Your task to perform on an android device: Add "logitech g pro" to the cart on ebay.com Image 0: 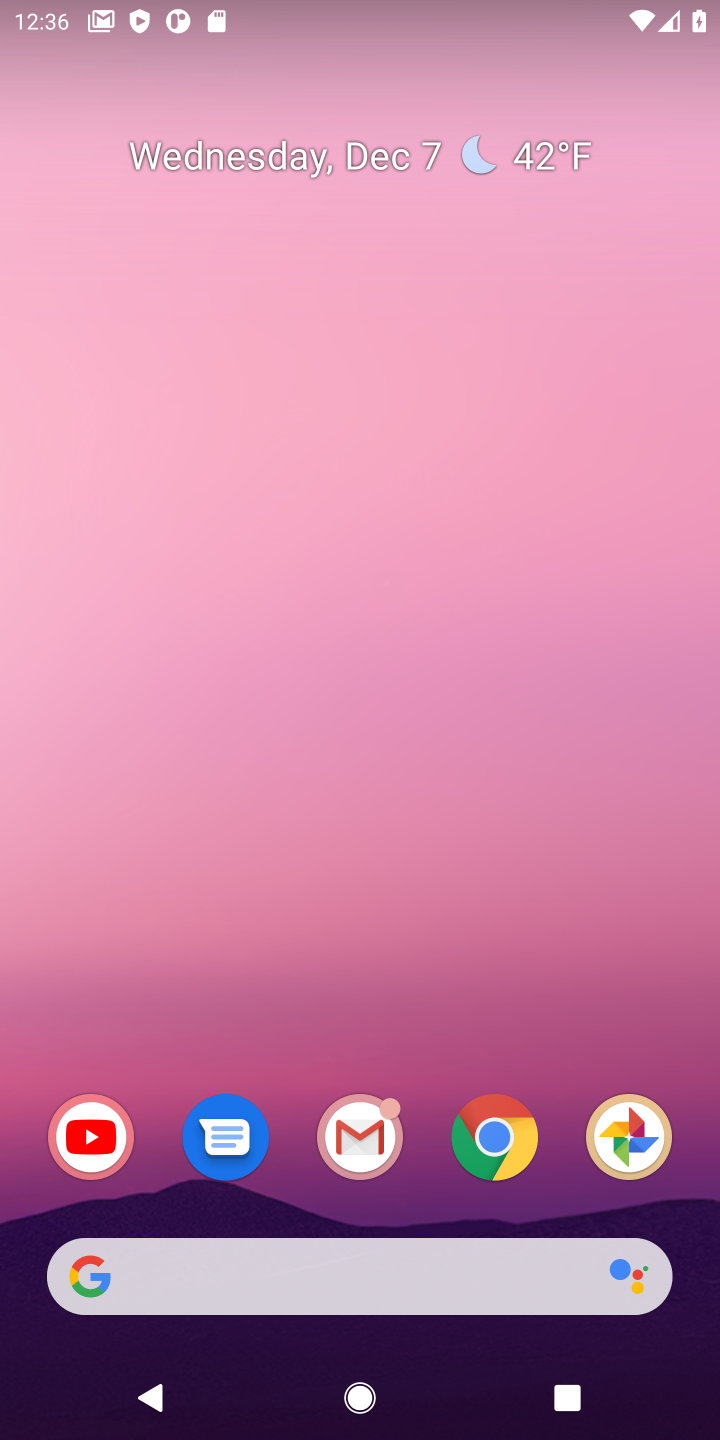
Step 0: drag from (294, 1137) to (323, 305)
Your task to perform on an android device: Add "logitech g pro" to the cart on ebay.com Image 1: 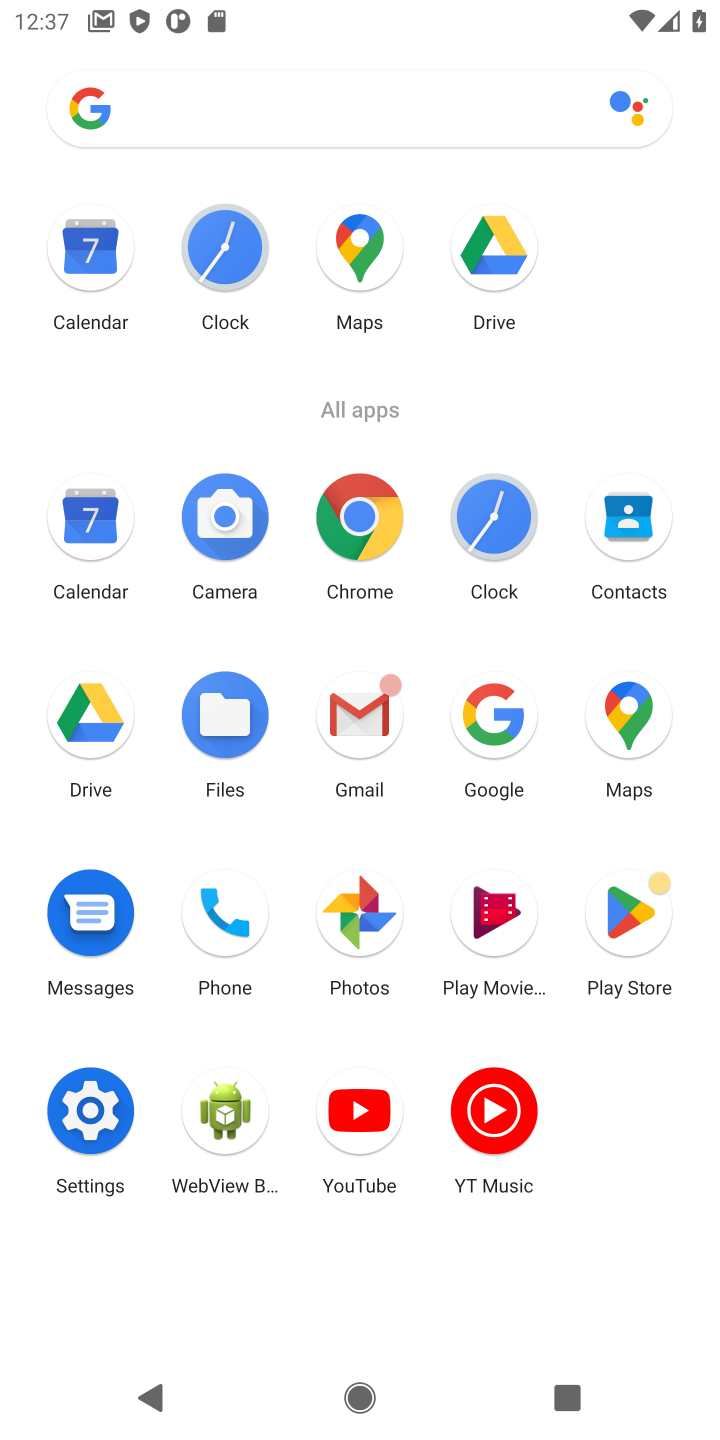
Step 1: click (493, 702)
Your task to perform on an android device: Add "logitech g pro" to the cart on ebay.com Image 2: 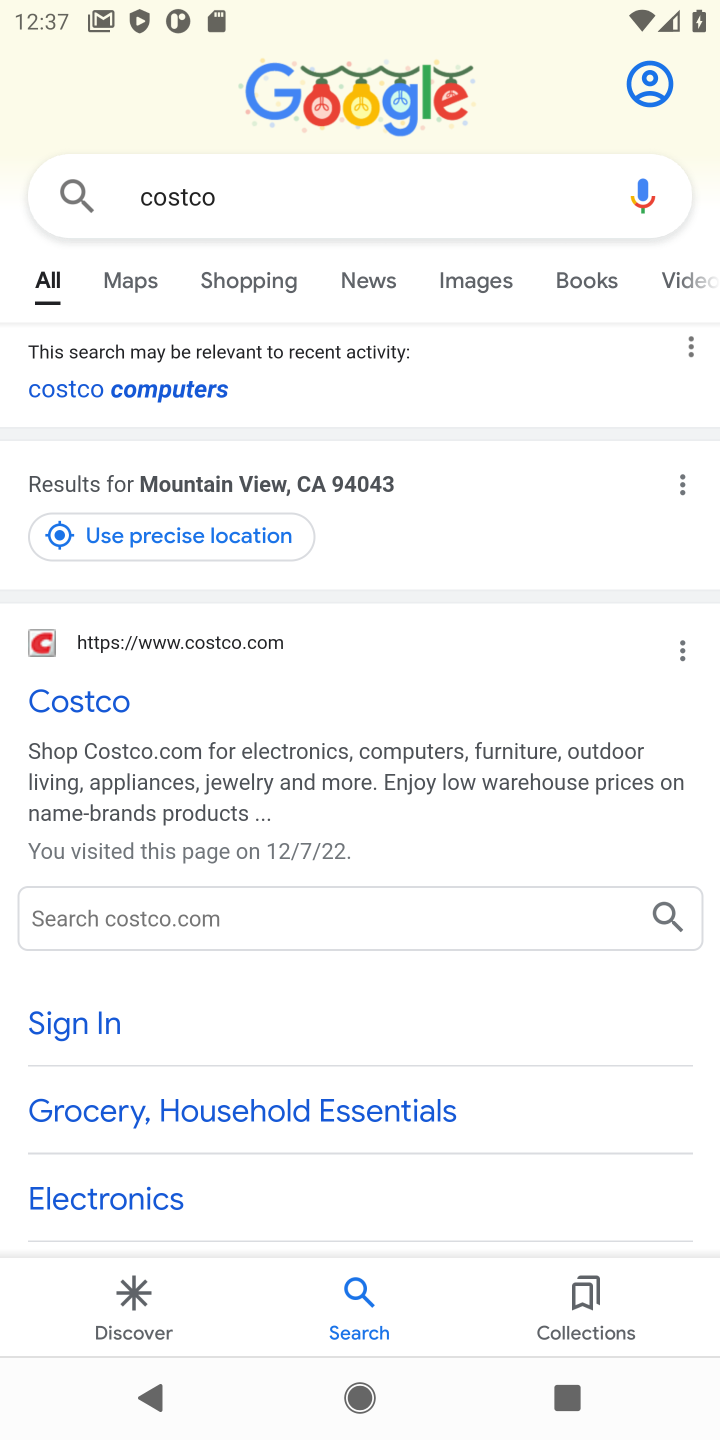
Step 2: click (199, 212)
Your task to perform on an android device: Add "logitech g pro" to the cart on ebay.com Image 3: 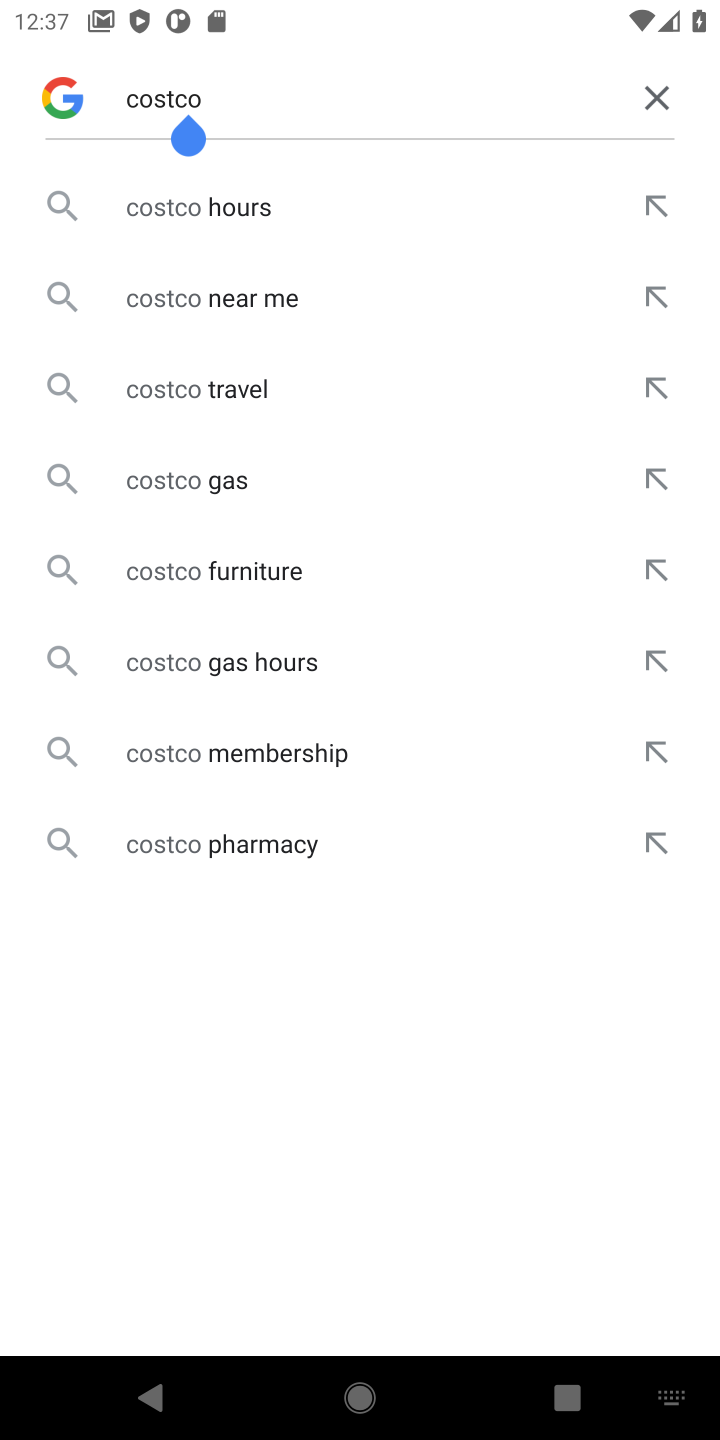
Step 3: click (659, 100)
Your task to perform on an android device: Add "logitech g pro" to the cart on ebay.com Image 4: 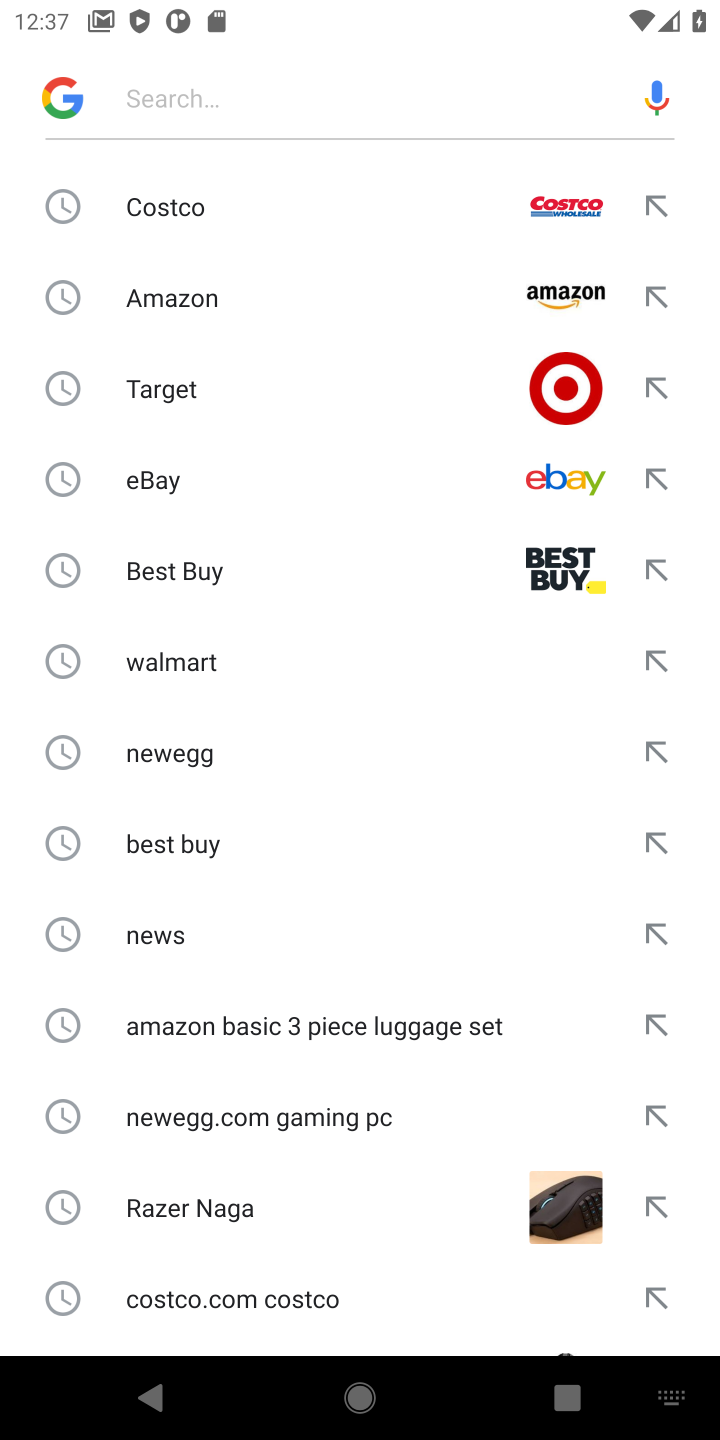
Step 4: click (164, 481)
Your task to perform on an android device: Add "logitech g pro" to the cart on ebay.com Image 5: 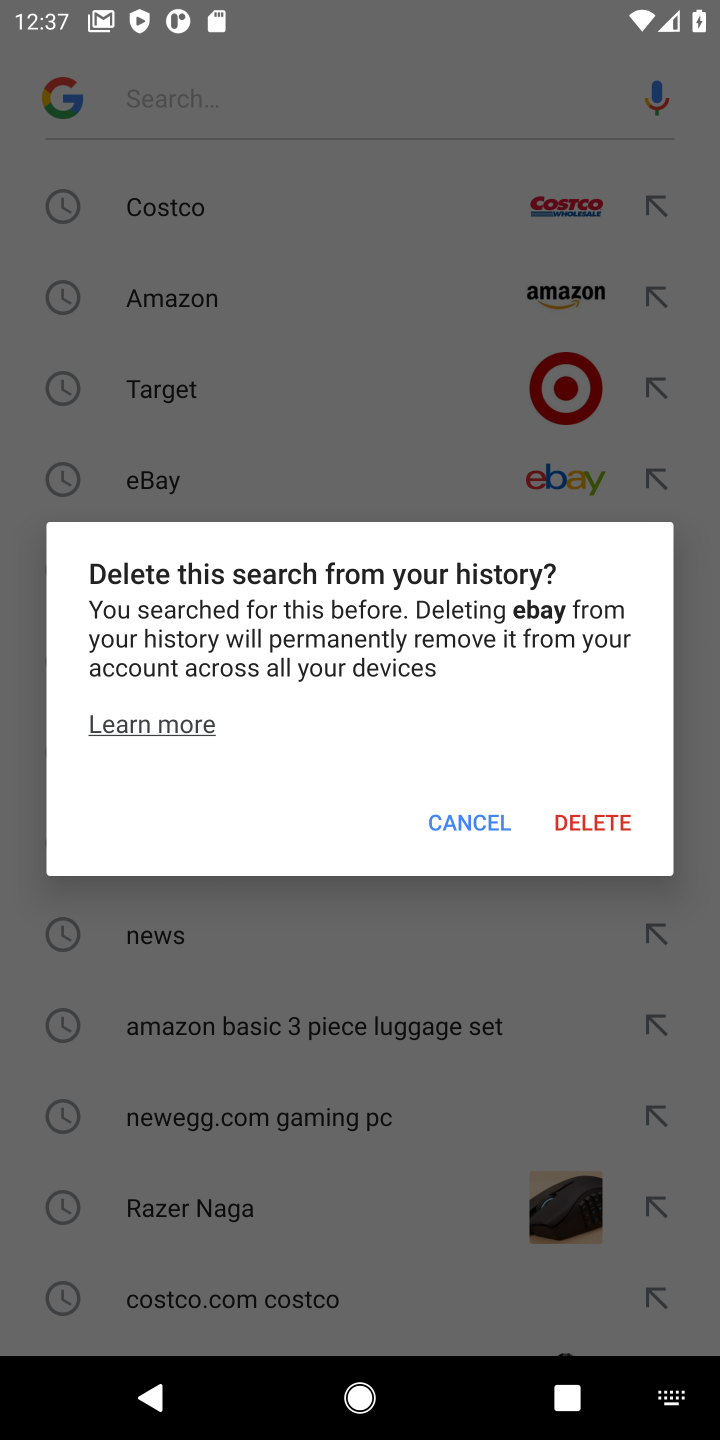
Step 5: click (496, 811)
Your task to perform on an android device: Add "logitech g pro" to the cart on ebay.com Image 6: 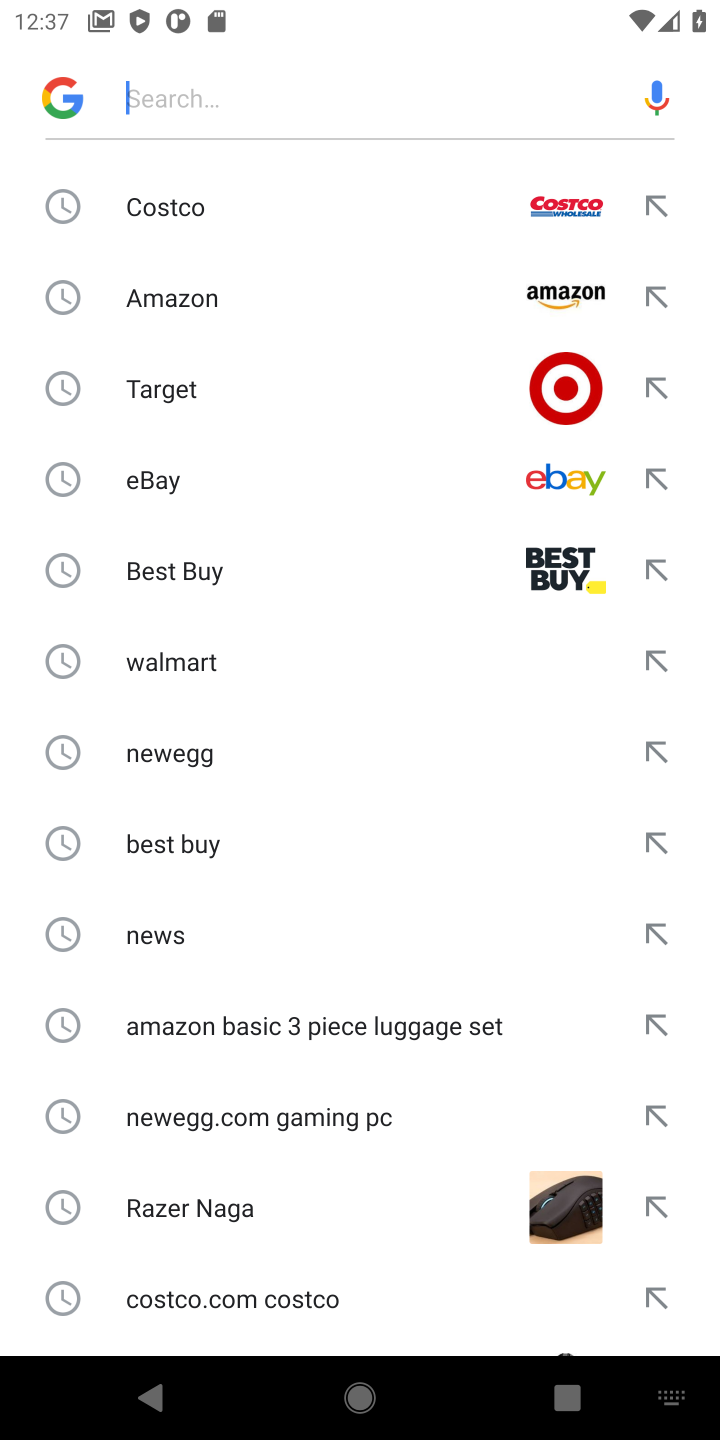
Step 6: click (562, 486)
Your task to perform on an android device: Add "logitech g pro" to the cart on ebay.com Image 7: 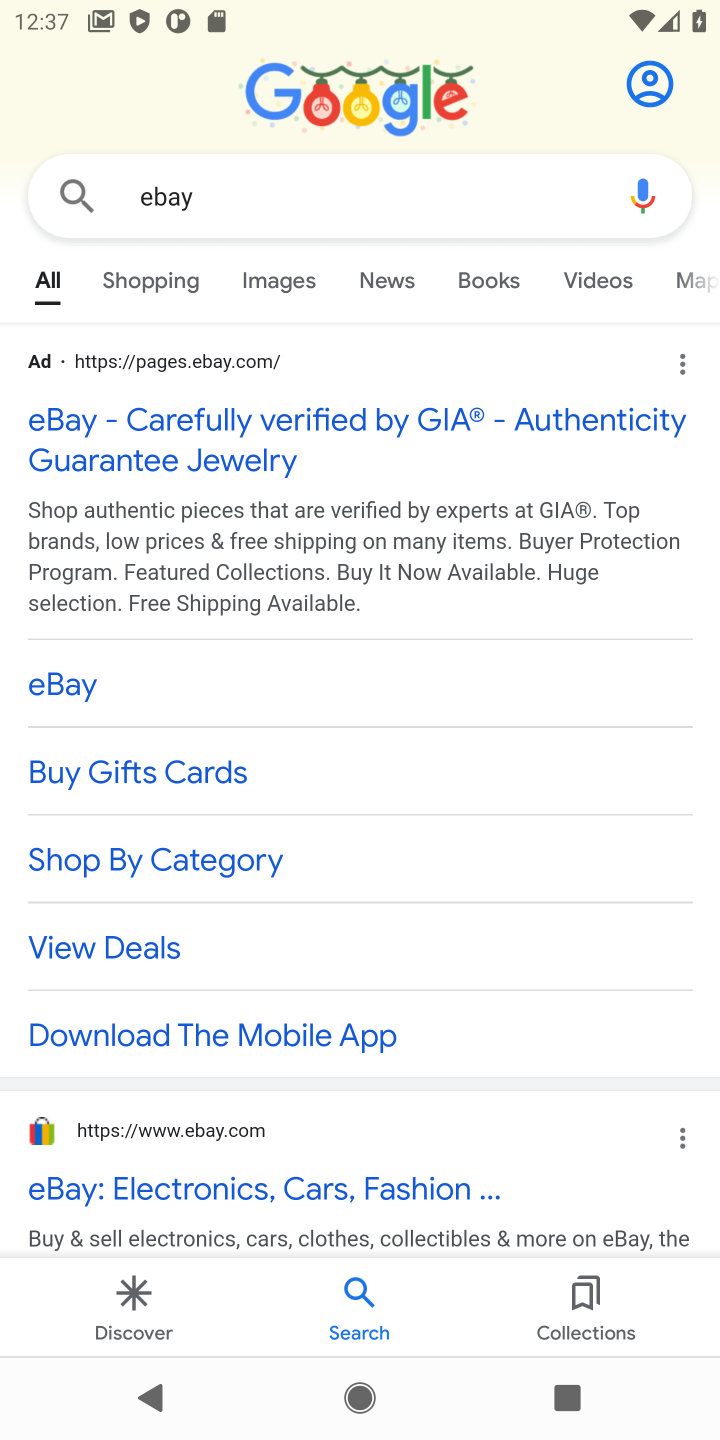
Step 7: click (209, 438)
Your task to perform on an android device: Add "logitech g pro" to the cart on ebay.com Image 8: 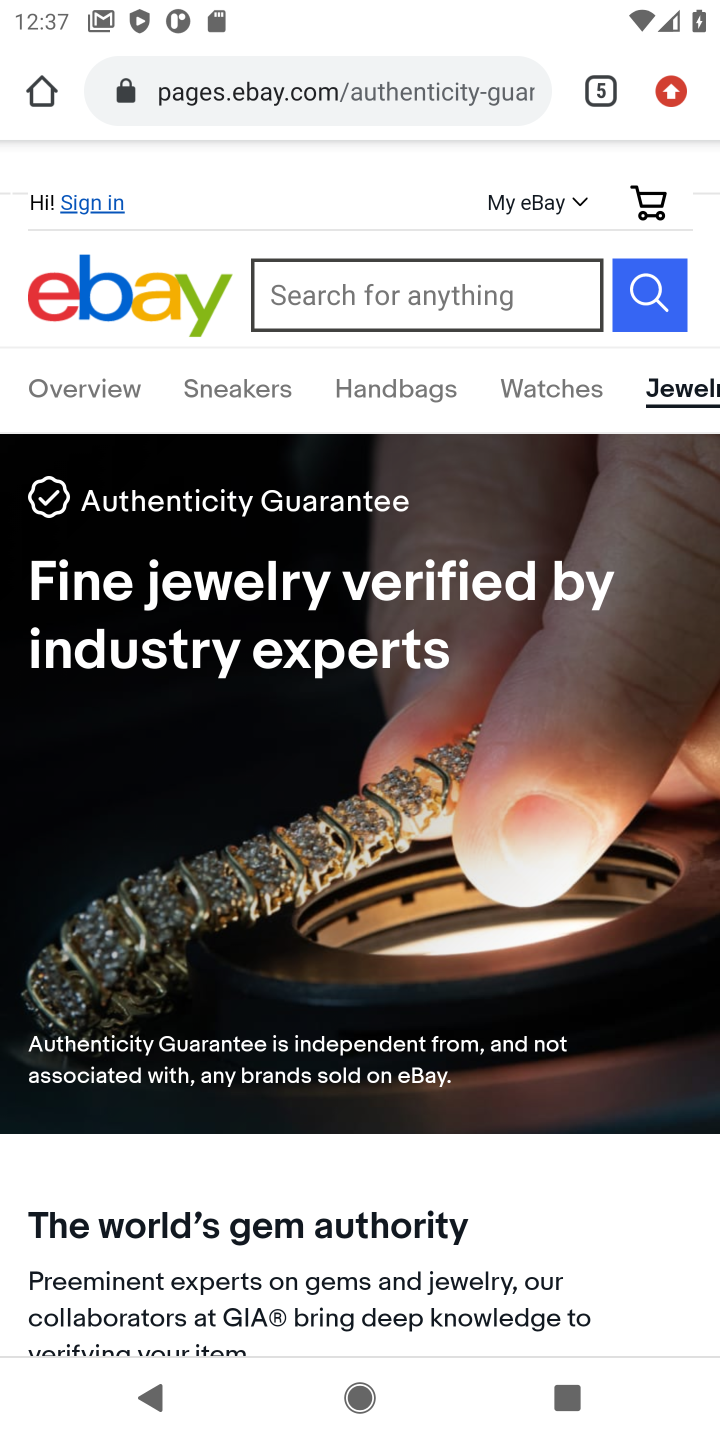
Step 8: click (396, 309)
Your task to perform on an android device: Add "logitech g pro" to the cart on ebay.com Image 9: 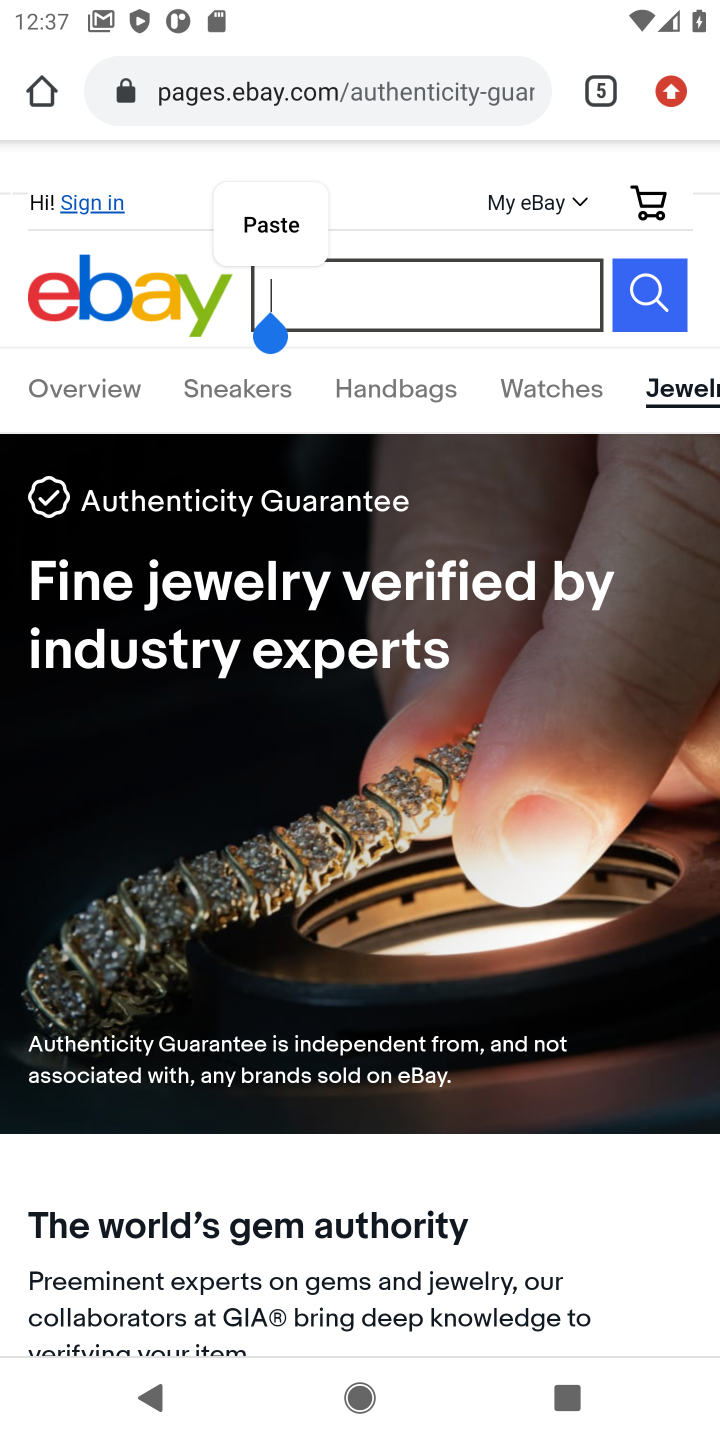
Step 9: type "logitech g pro"
Your task to perform on an android device: Add "logitech g pro" to the cart on ebay.com Image 10: 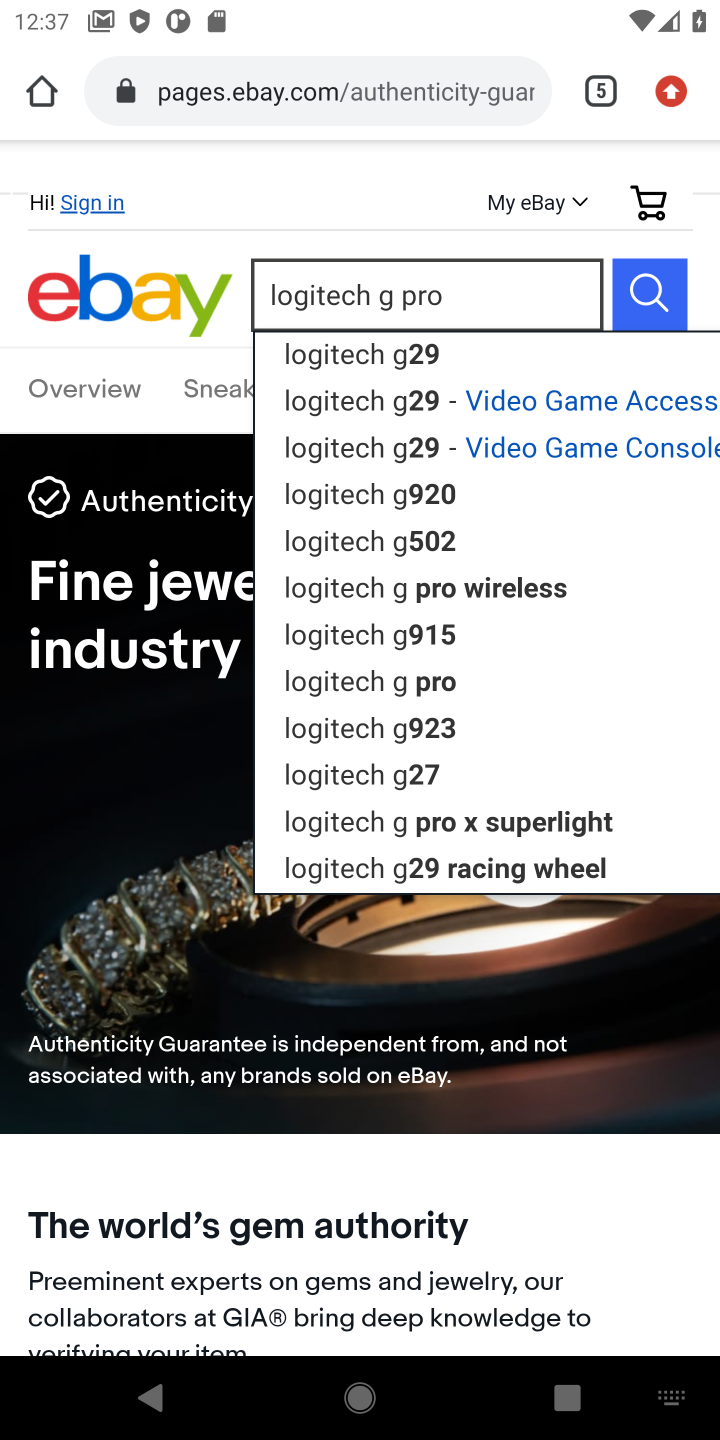
Step 10: click (378, 684)
Your task to perform on an android device: Add "logitech g pro" to the cart on ebay.com Image 11: 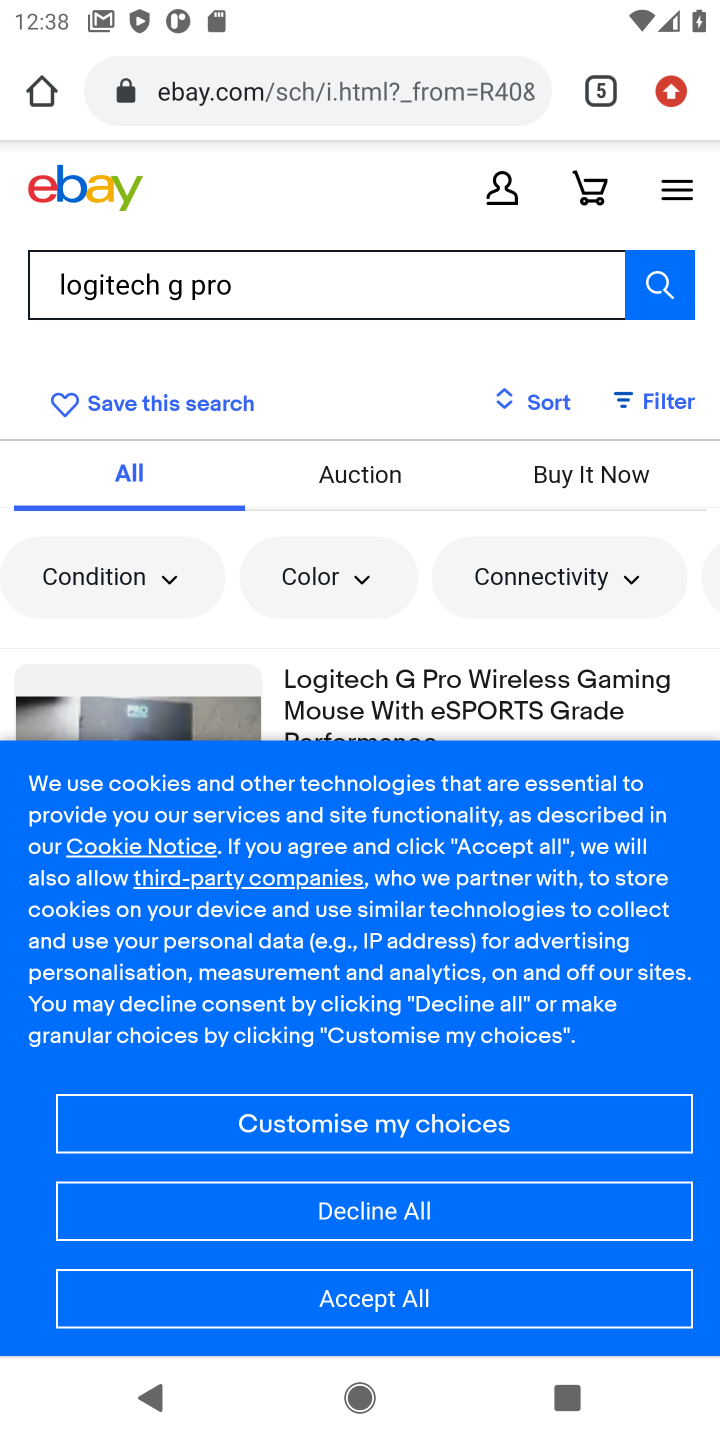
Step 11: click (327, 696)
Your task to perform on an android device: Add "logitech g pro" to the cart on ebay.com Image 12: 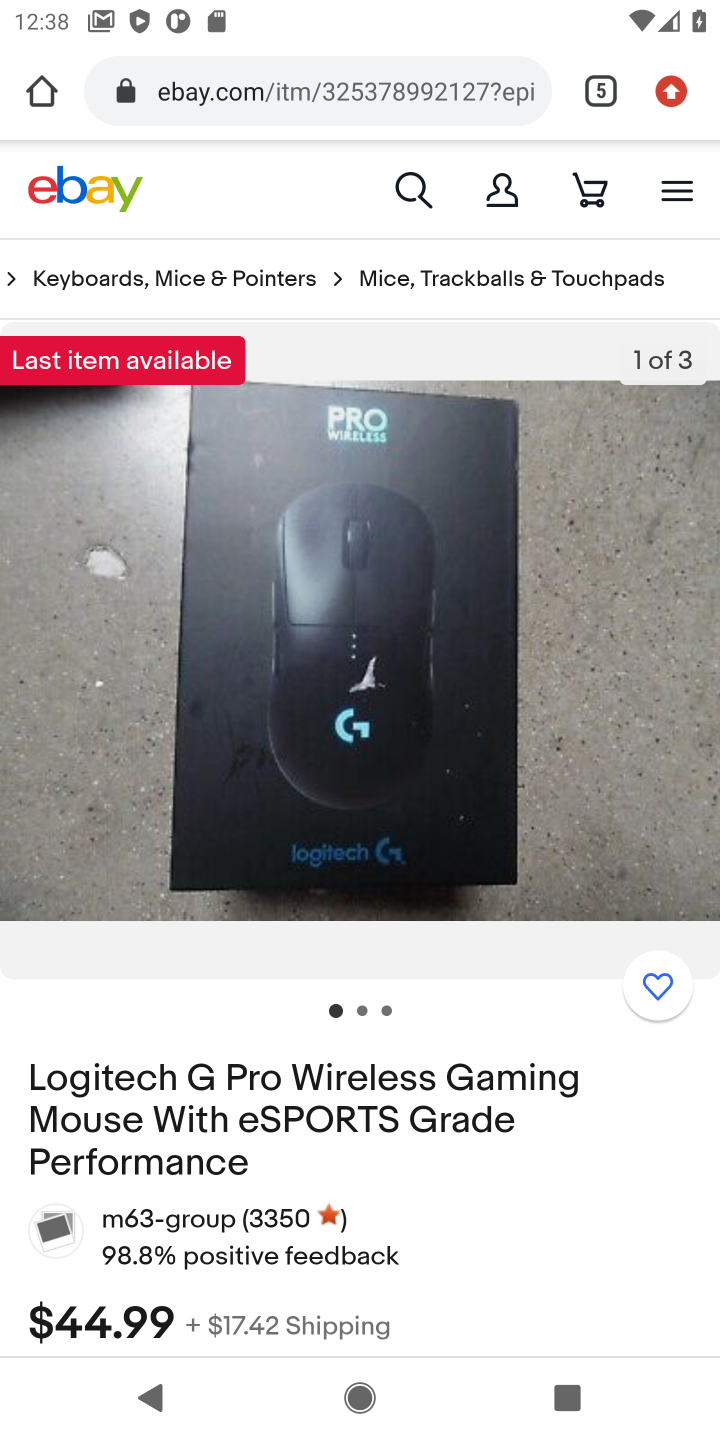
Step 12: drag from (379, 833) to (359, 483)
Your task to perform on an android device: Add "logitech g pro" to the cart on ebay.com Image 13: 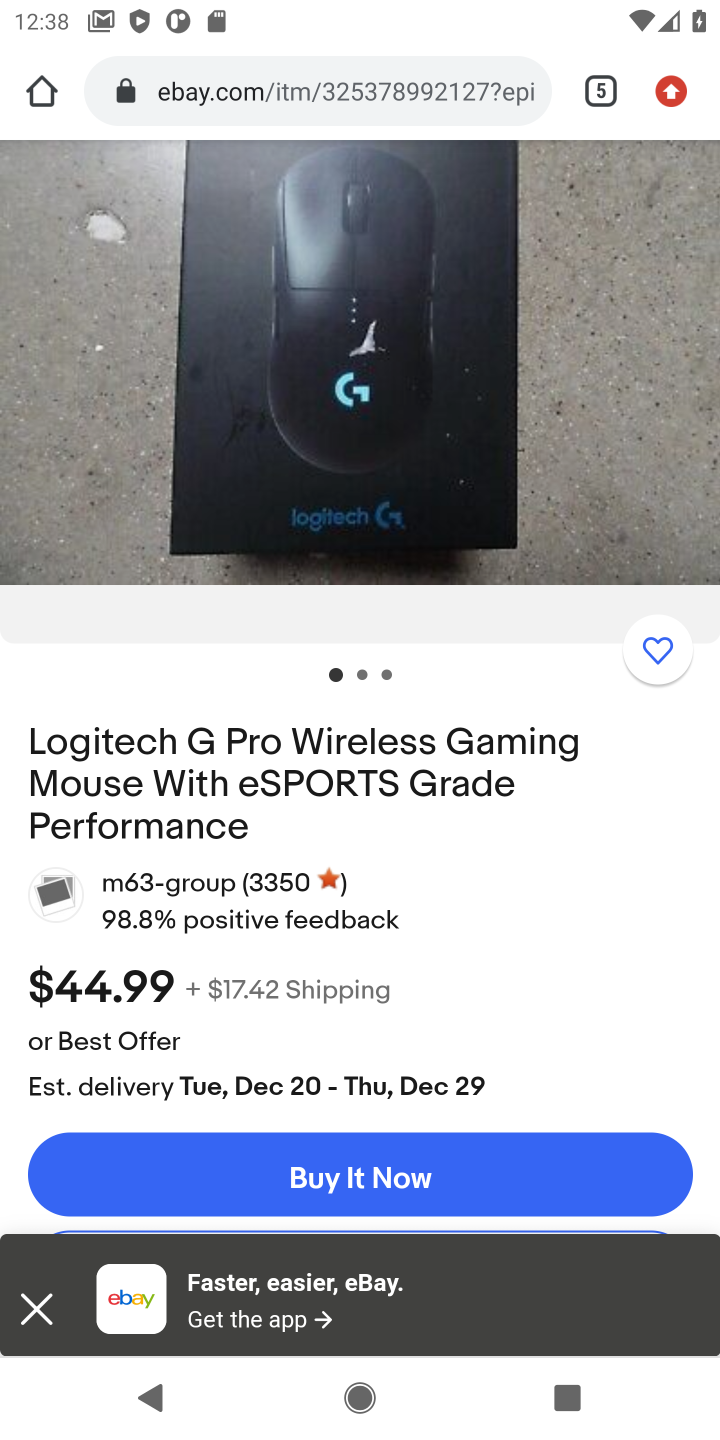
Step 13: click (34, 1307)
Your task to perform on an android device: Add "logitech g pro" to the cart on ebay.com Image 14: 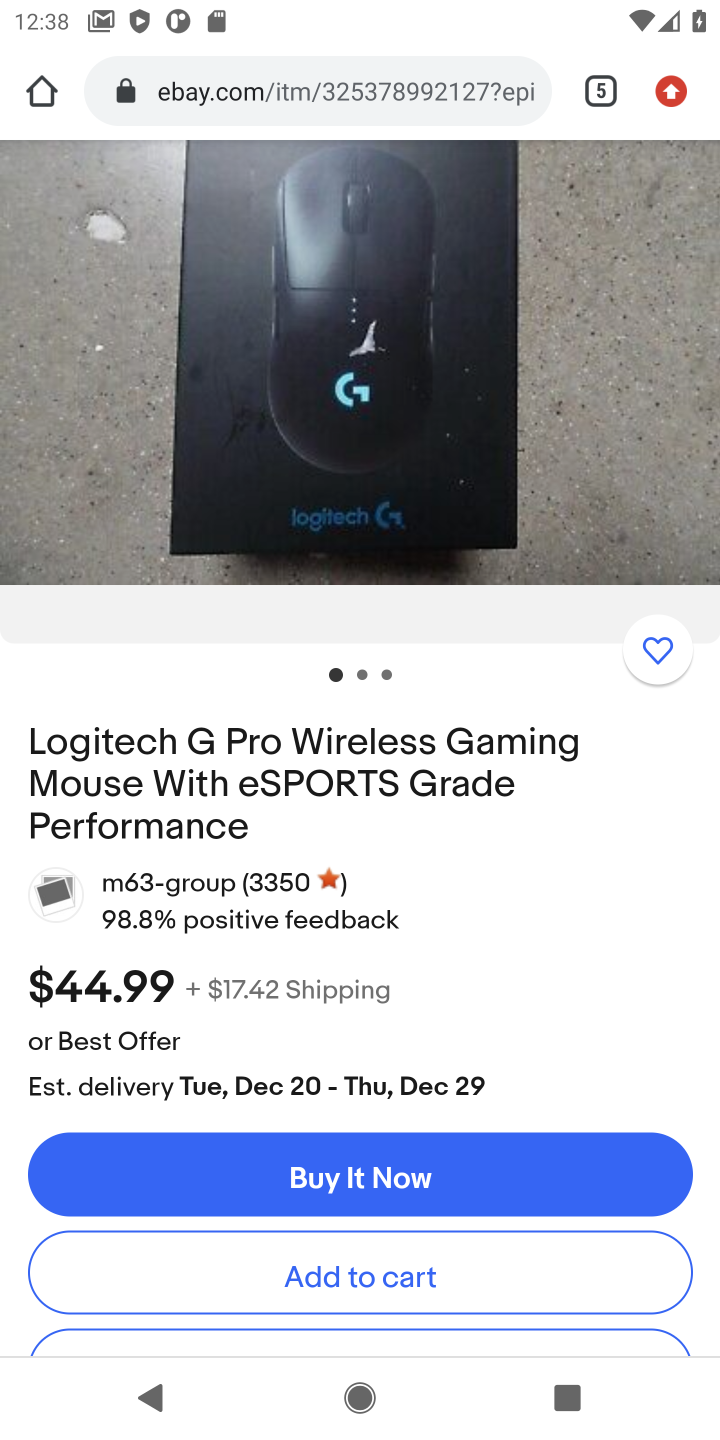
Step 14: click (202, 1246)
Your task to perform on an android device: Add "logitech g pro" to the cart on ebay.com Image 15: 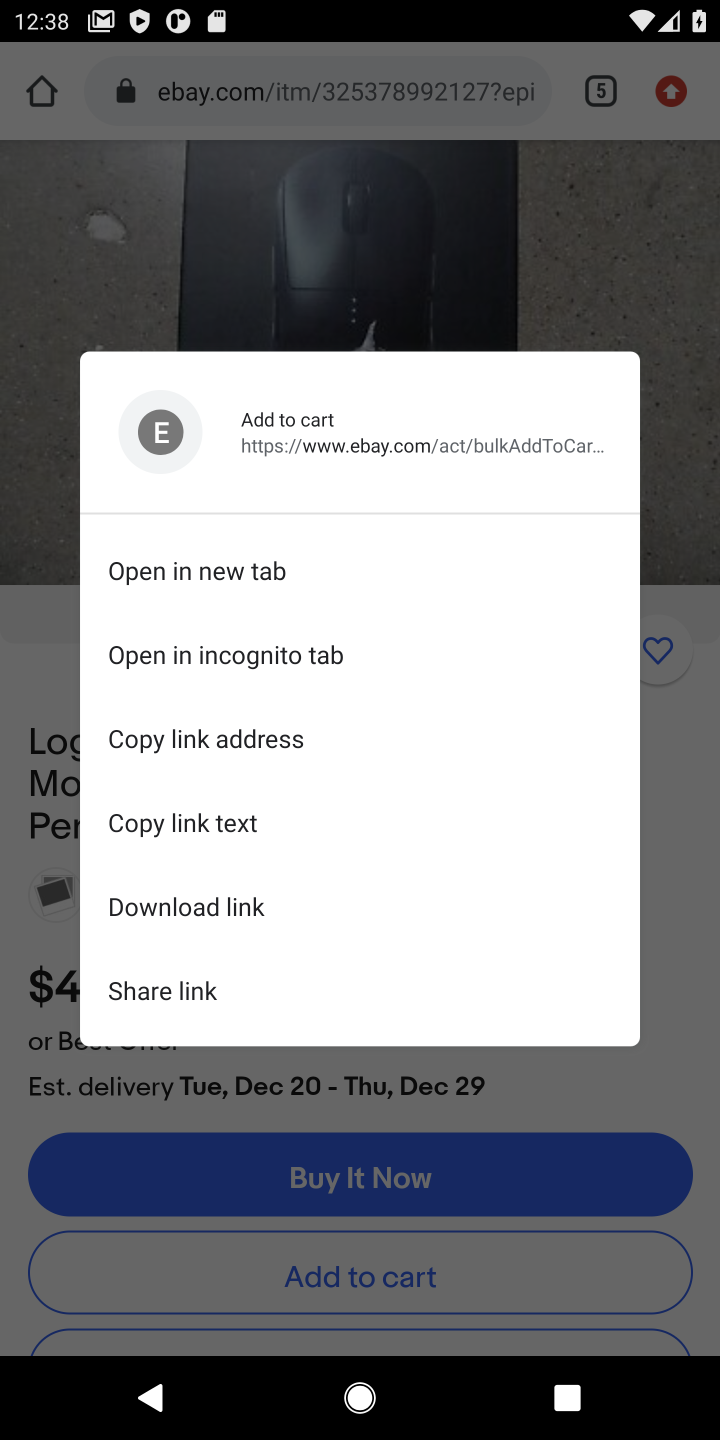
Step 15: click (182, 1251)
Your task to perform on an android device: Add "logitech g pro" to the cart on ebay.com Image 16: 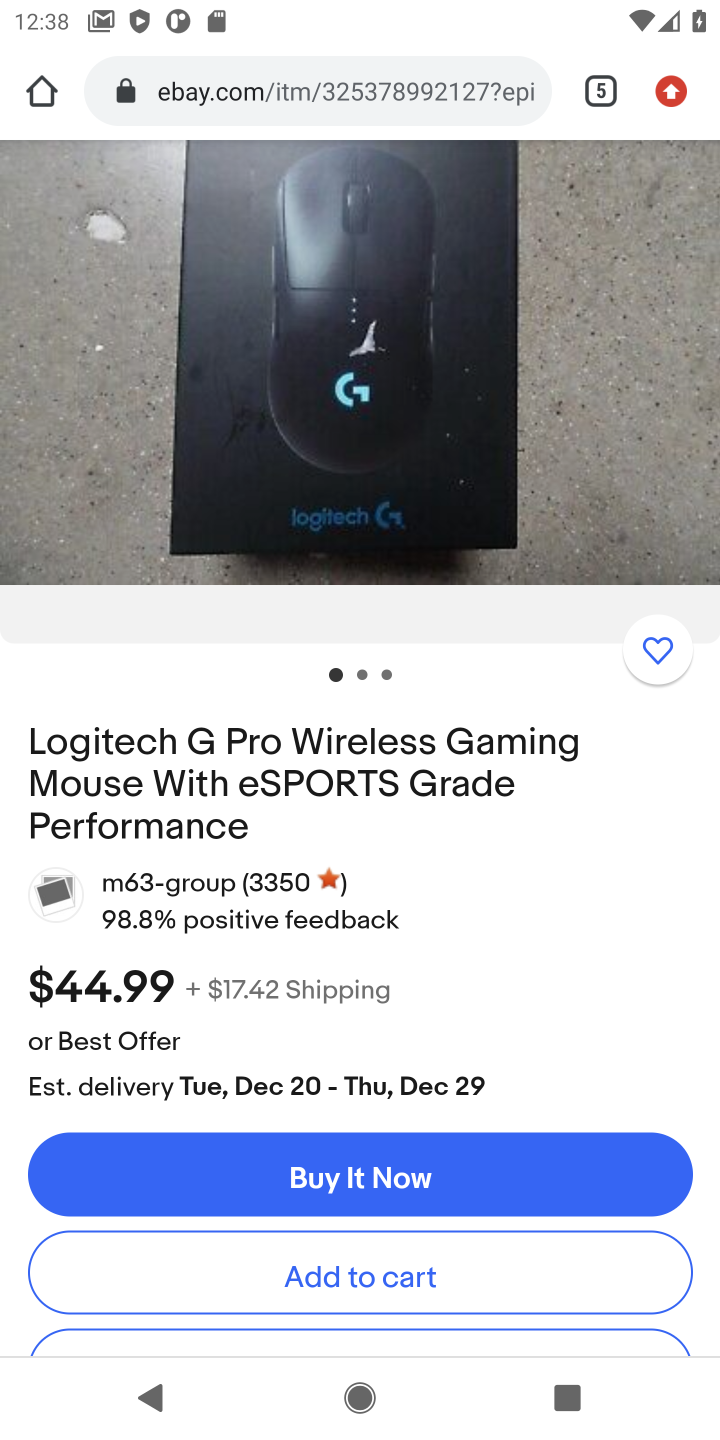
Step 16: click (395, 1282)
Your task to perform on an android device: Add "logitech g pro" to the cart on ebay.com Image 17: 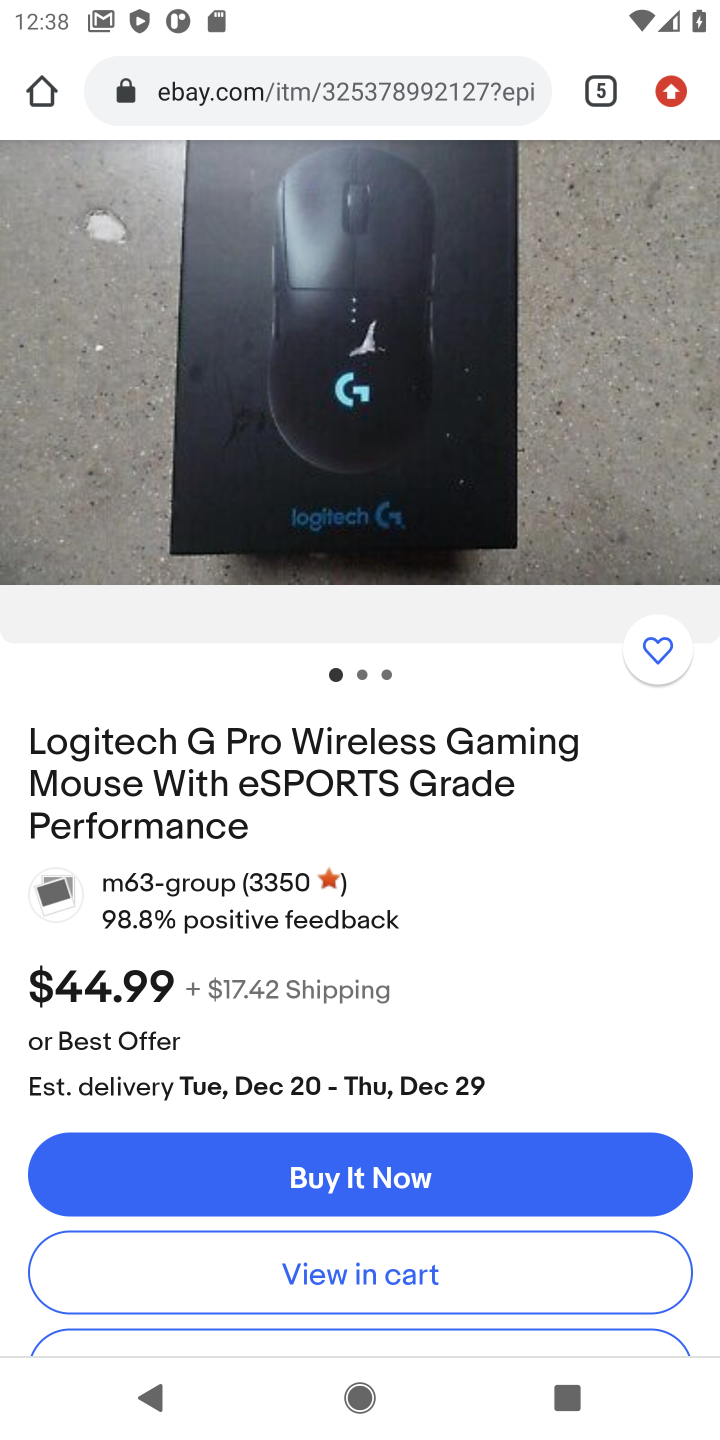
Step 17: task complete